Your task to perform on an android device: turn on javascript in the chrome app Image 0: 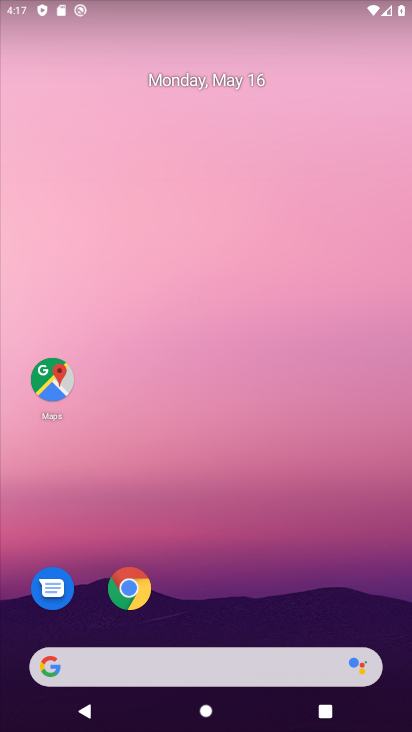
Step 0: drag from (250, 511) to (221, 20)
Your task to perform on an android device: turn on javascript in the chrome app Image 1: 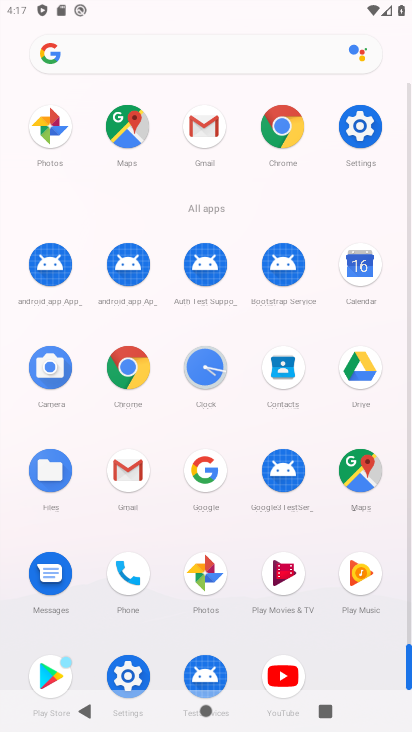
Step 1: click (123, 362)
Your task to perform on an android device: turn on javascript in the chrome app Image 2: 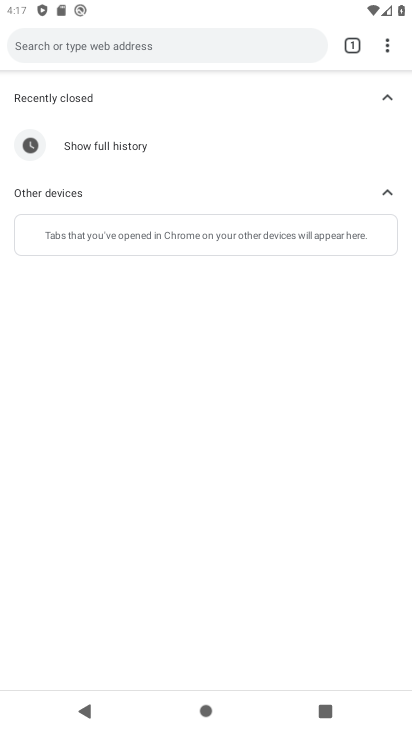
Step 2: drag from (384, 38) to (251, 379)
Your task to perform on an android device: turn on javascript in the chrome app Image 3: 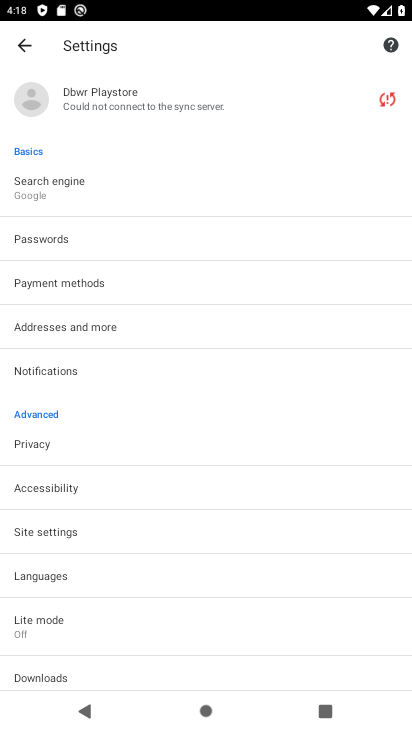
Step 3: drag from (230, 581) to (280, 162)
Your task to perform on an android device: turn on javascript in the chrome app Image 4: 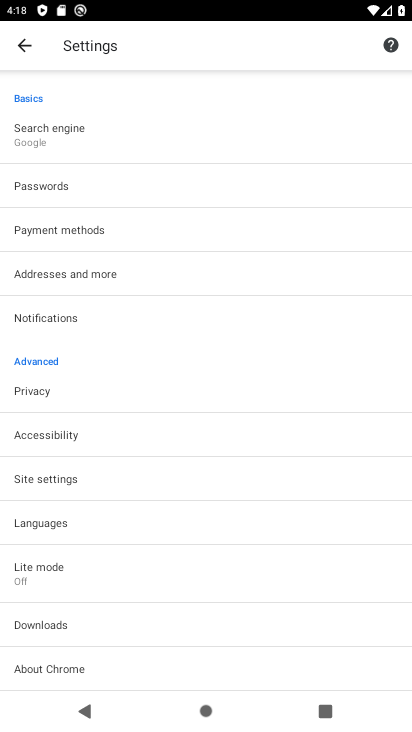
Step 4: click (101, 491)
Your task to perform on an android device: turn on javascript in the chrome app Image 5: 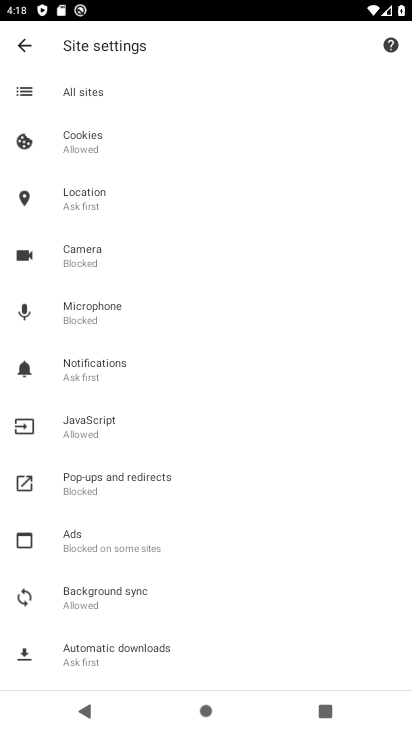
Step 5: drag from (236, 581) to (285, 117)
Your task to perform on an android device: turn on javascript in the chrome app Image 6: 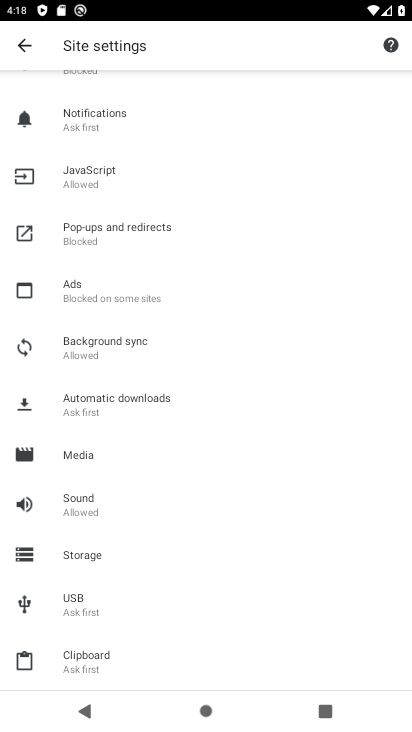
Step 6: click (134, 168)
Your task to perform on an android device: turn on javascript in the chrome app Image 7: 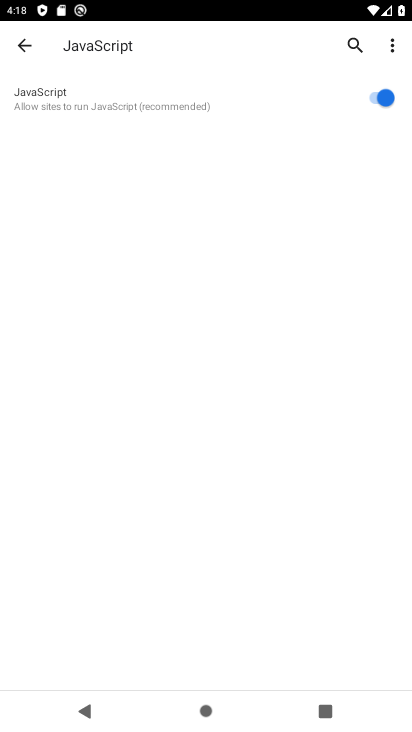
Step 7: task complete